Your task to perform on an android device: Open the calendar and show me this week's events Image 0: 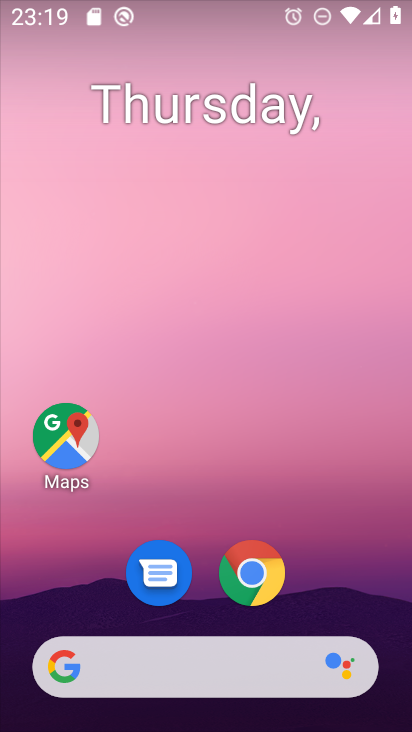
Step 0: drag from (379, 554) to (322, 150)
Your task to perform on an android device: Open the calendar and show me this week's events Image 1: 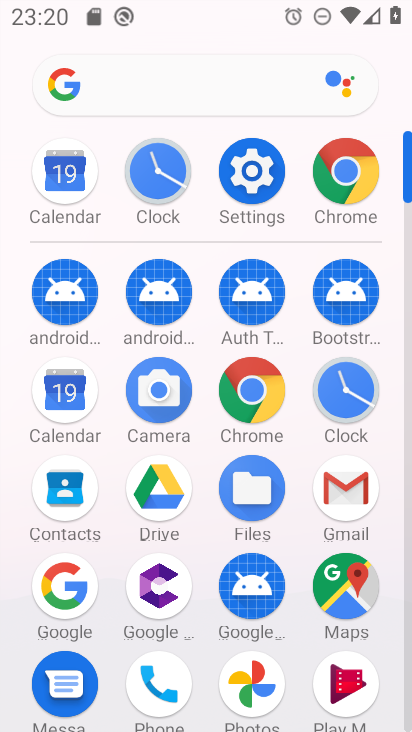
Step 1: click (59, 392)
Your task to perform on an android device: Open the calendar and show me this week's events Image 2: 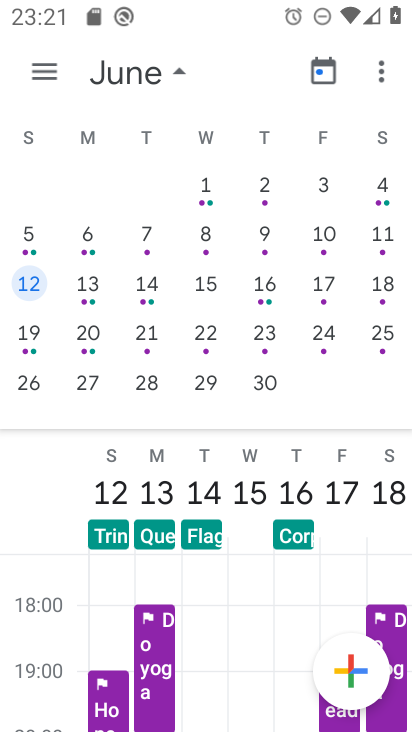
Step 2: click (129, 77)
Your task to perform on an android device: Open the calendar and show me this week's events Image 3: 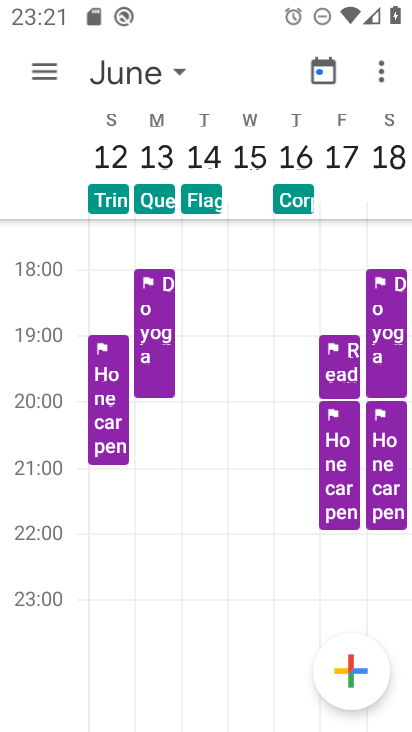
Step 3: click (129, 76)
Your task to perform on an android device: Open the calendar and show me this week's events Image 4: 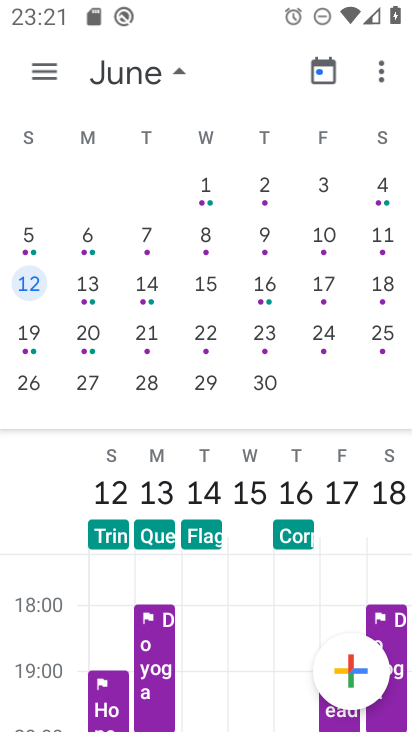
Step 4: drag from (14, 283) to (365, 297)
Your task to perform on an android device: Open the calendar and show me this week's events Image 5: 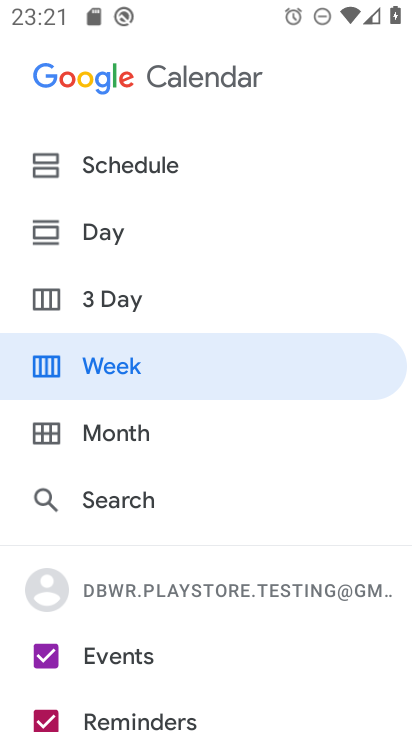
Step 5: drag from (368, 295) to (14, 316)
Your task to perform on an android device: Open the calendar and show me this week's events Image 6: 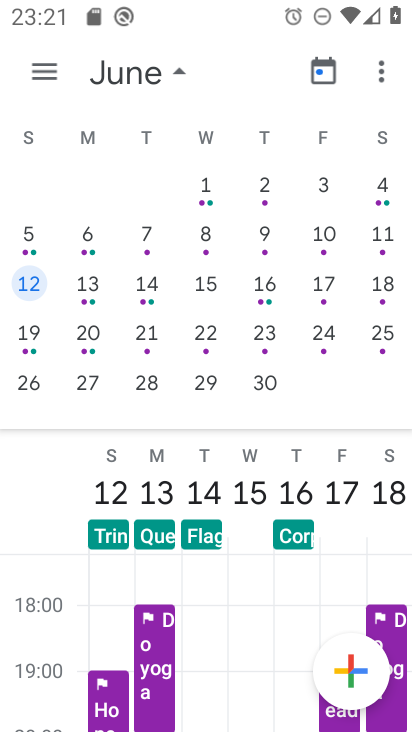
Step 6: drag from (35, 303) to (407, 302)
Your task to perform on an android device: Open the calendar and show me this week's events Image 7: 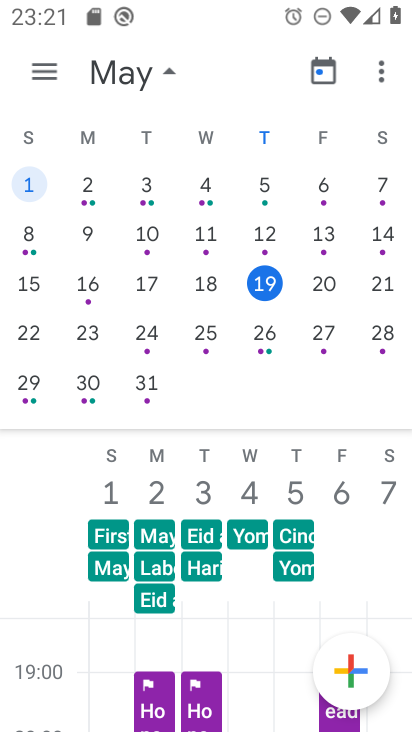
Step 7: drag from (74, 327) to (292, 315)
Your task to perform on an android device: Open the calendar and show me this week's events Image 8: 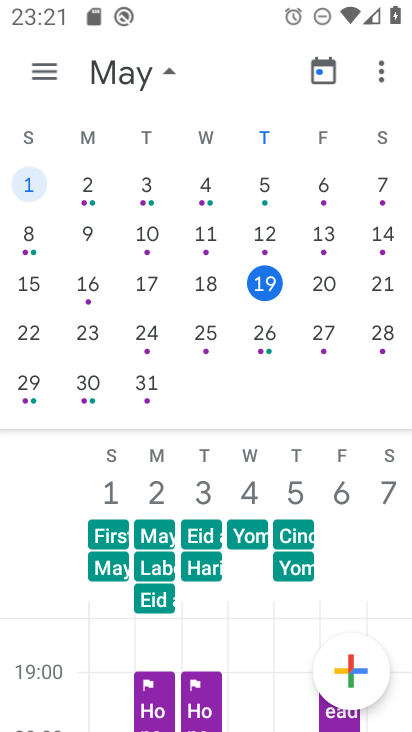
Step 8: click (259, 278)
Your task to perform on an android device: Open the calendar and show me this week's events Image 9: 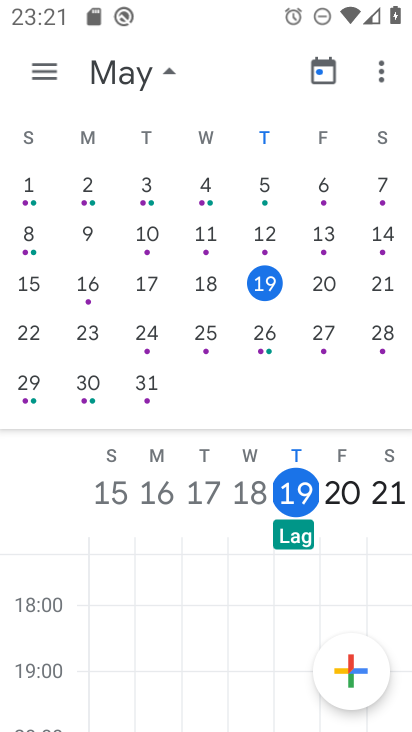
Step 9: task complete